Your task to perform on an android device: turn on data saver in the chrome app Image 0: 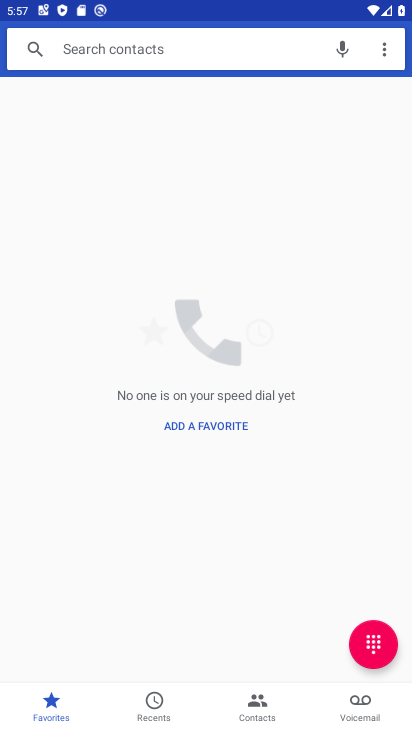
Step 0: press back button
Your task to perform on an android device: turn on data saver in the chrome app Image 1: 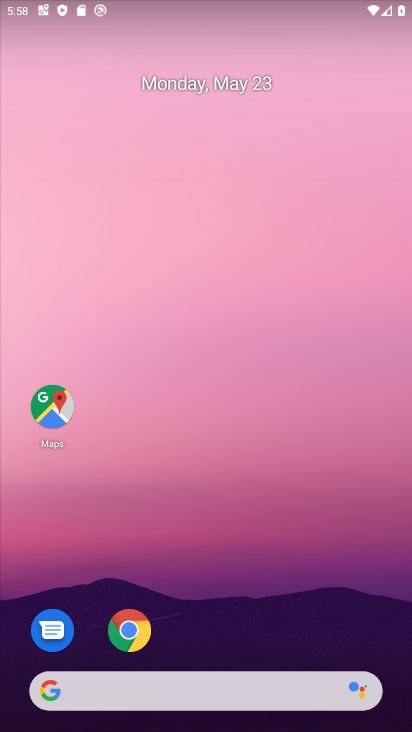
Step 1: drag from (295, 554) to (249, 2)
Your task to perform on an android device: turn on data saver in the chrome app Image 2: 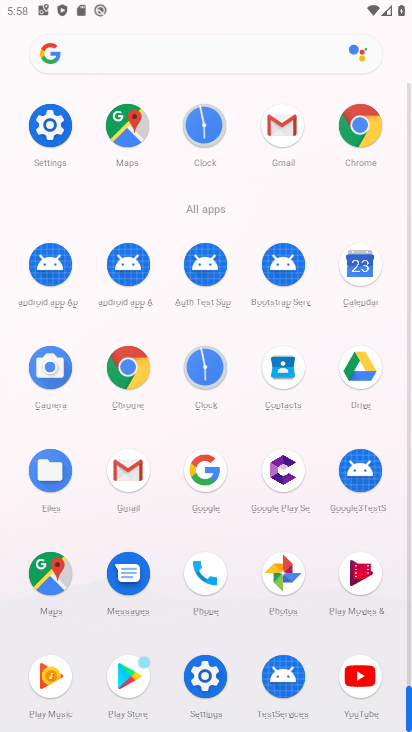
Step 2: click (362, 125)
Your task to perform on an android device: turn on data saver in the chrome app Image 3: 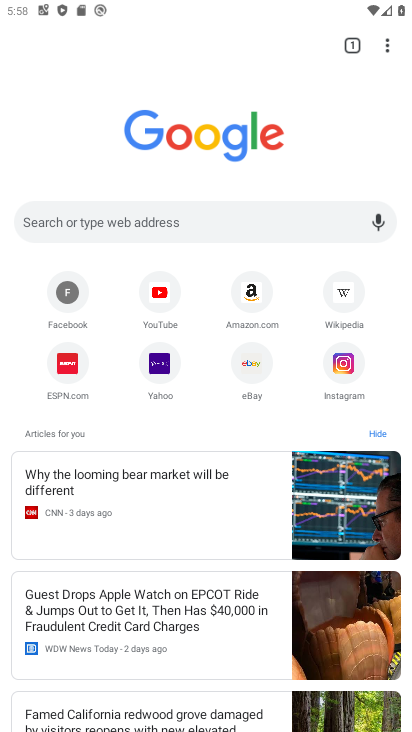
Step 3: drag from (12, 504) to (10, 122)
Your task to perform on an android device: turn on data saver in the chrome app Image 4: 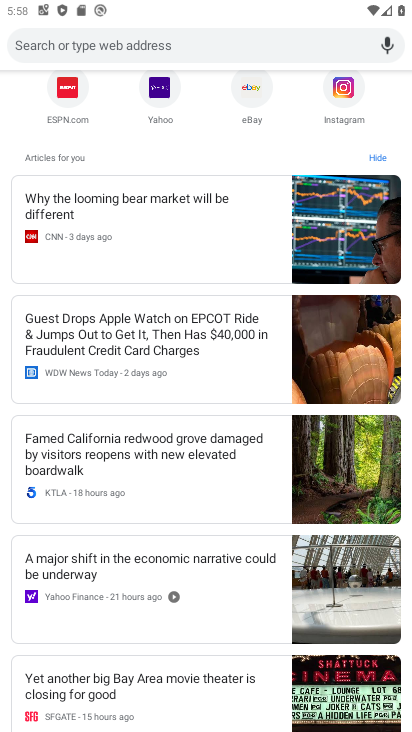
Step 4: drag from (3, 496) to (3, 532)
Your task to perform on an android device: turn on data saver in the chrome app Image 5: 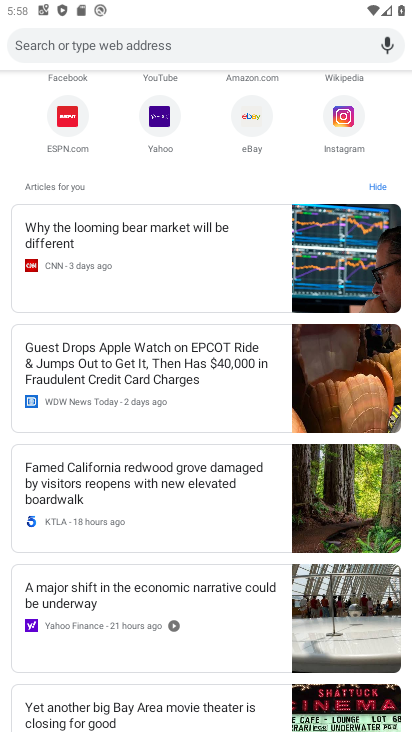
Step 5: drag from (54, 154) to (57, 461)
Your task to perform on an android device: turn on data saver in the chrome app Image 6: 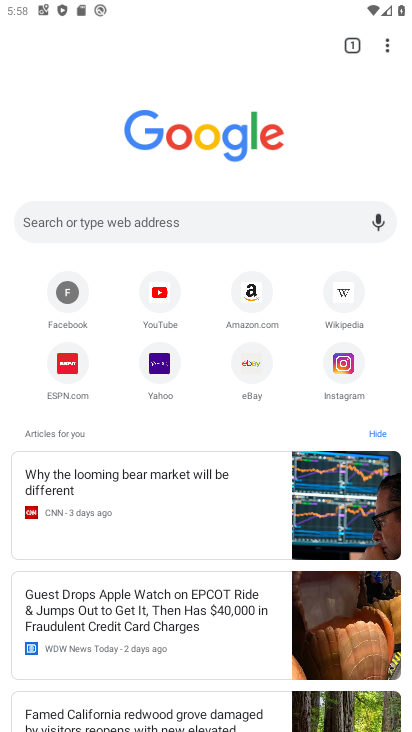
Step 6: drag from (390, 41) to (239, 434)
Your task to perform on an android device: turn on data saver in the chrome app Image 7: 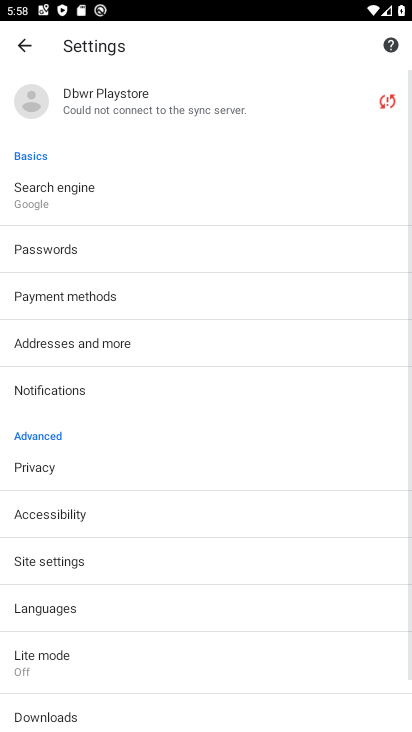
Step 7: drag from (155, 473) to (157, 134)
Your task to perform on an android device: turn on data saver in the chrome app Image 8: 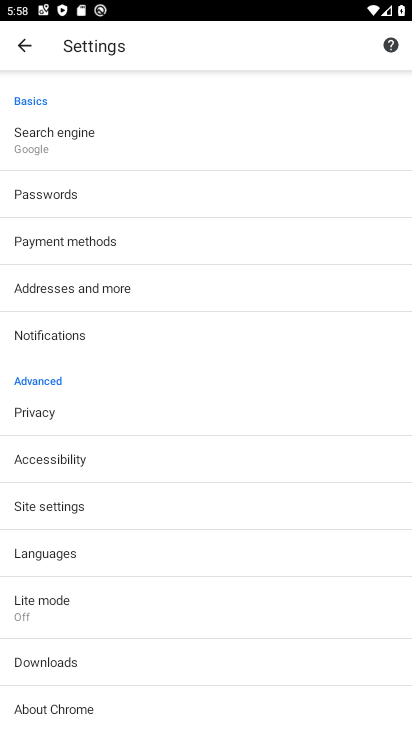
Step 8: click (75, 605)
Your task to perform on an android device: turn on data saver in the chrome app Image 9: 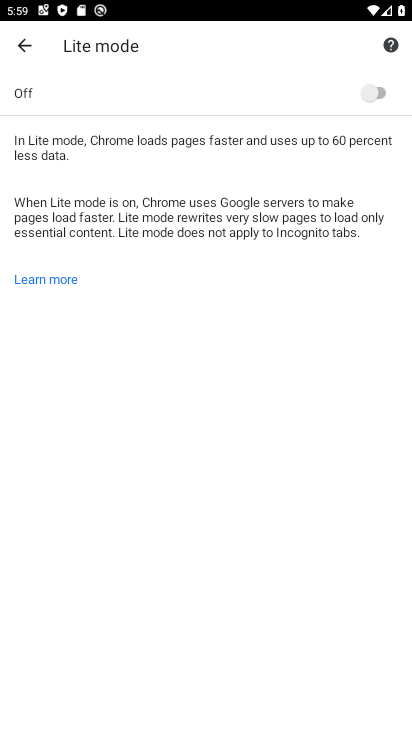
Step 9: click (371, 89)
Your task to perform on an android device: turn on data saver in the chrome app Image 10: 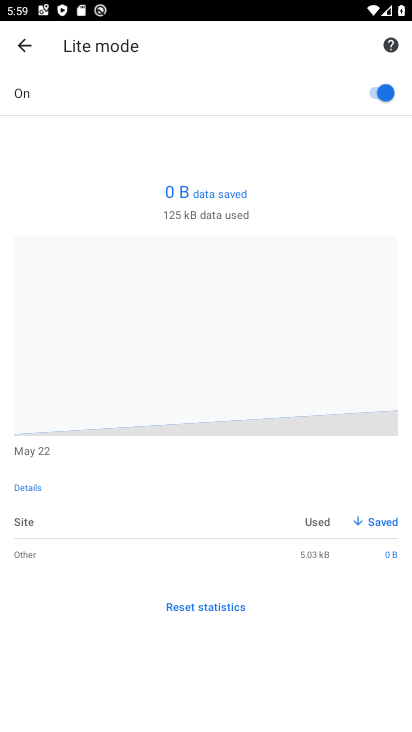
Step 10: task complete